Your task to perform on an android device: Open internet settings Image 0: 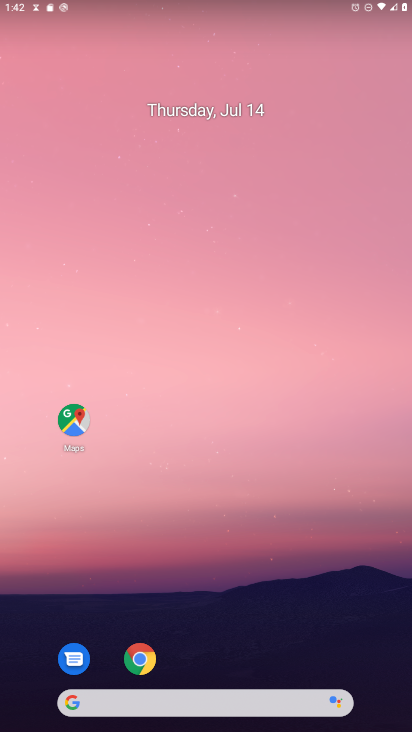
Step 0: drag from (75, 582) to (253, 96)
Your task to perform on an android device: Open internet settings Image 1: 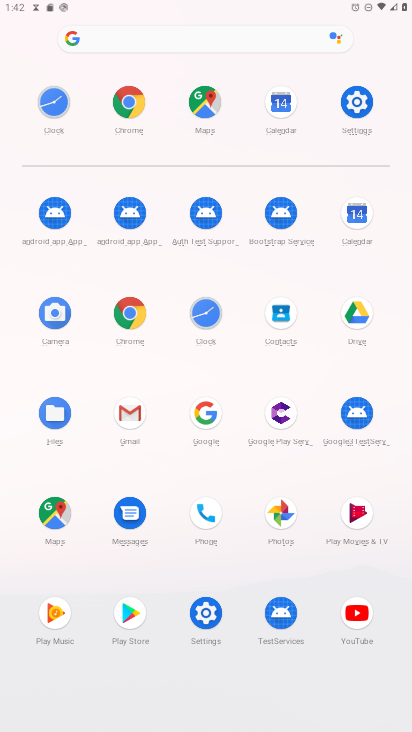
Step 1: click (222, 614)
Your task to perform on an android device: Open internet settings Image 2: 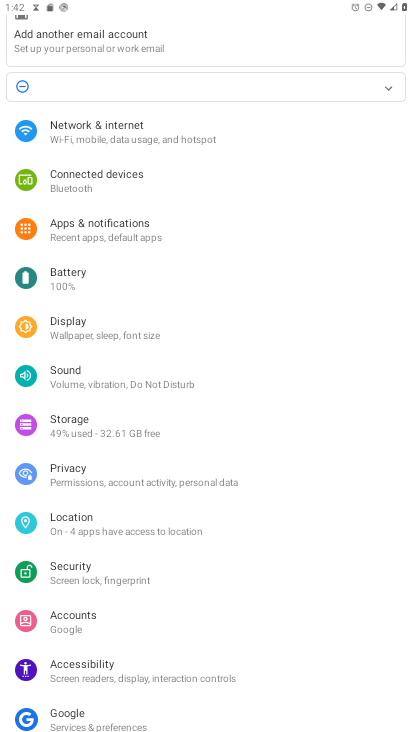
Step 2: click (99, 137)
Your task to perform on an android device: Open internet settings Image 3: 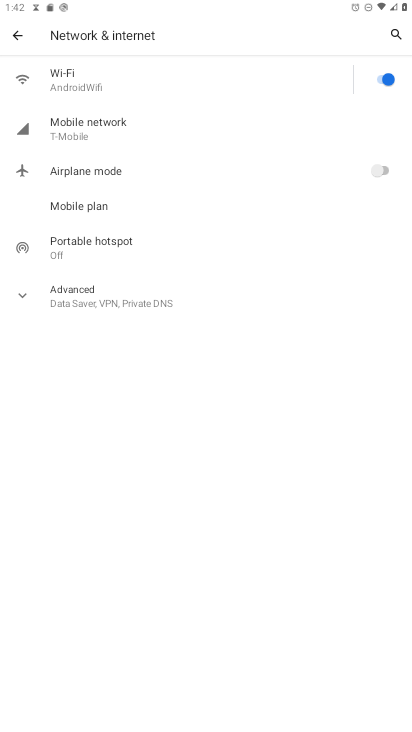
Step 3: task complete